Your task to perform on an android device: Search for sushi restaurants on Maps Image 0: 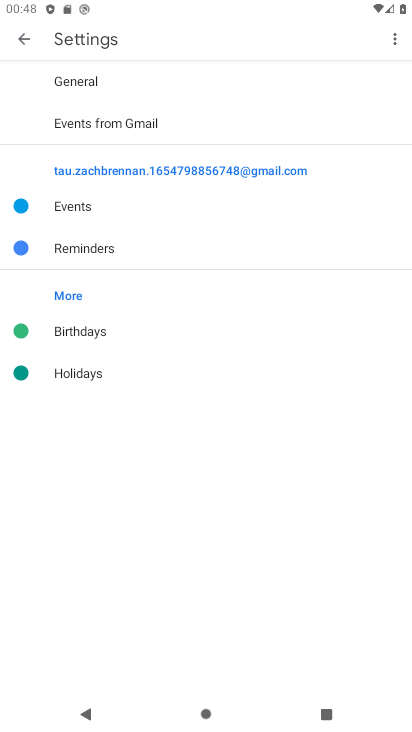
Step 0: press home button
Your task to perform on an android device: Search for sushi restaurants on Maps Image 1: 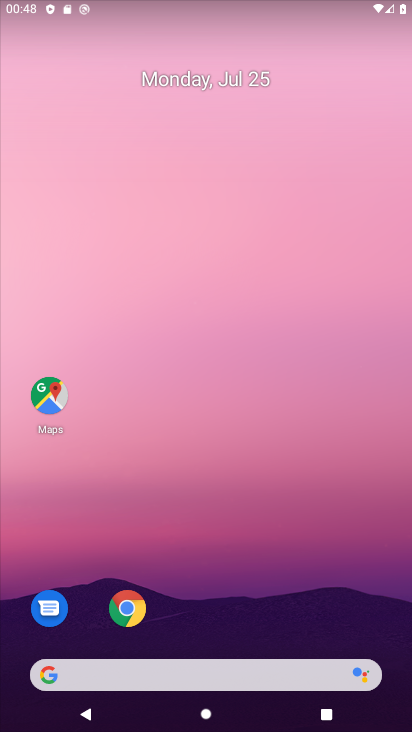
Step 1: drag from (210, 632) to (131, 56)
Your task to perform on an android device: Search for sushi restaurants on Maps Image 2: 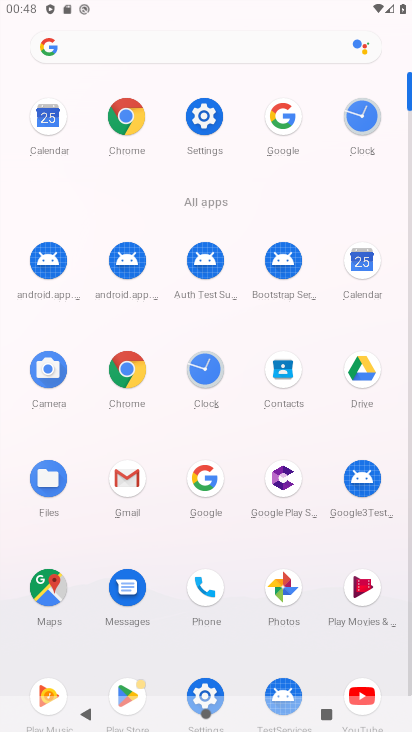
Step 2: click (54, 585)
Your task to perform on an android device: Search for sushi restaurants on Maps Image 3: 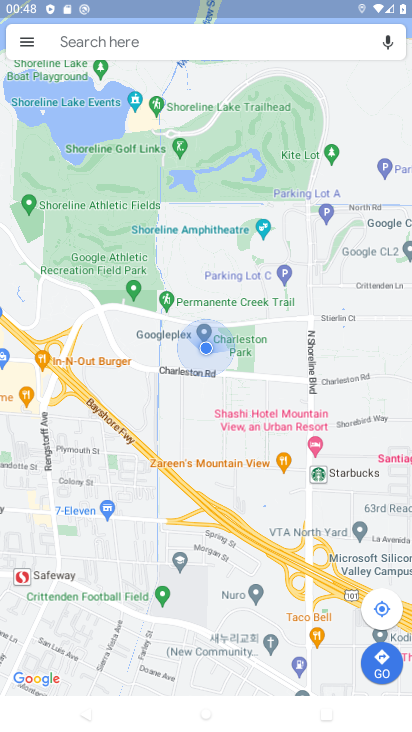
Step 3: click (161, 43)
Your task to perform on an android device: Search for sushi restaurants on Maps Image 4: 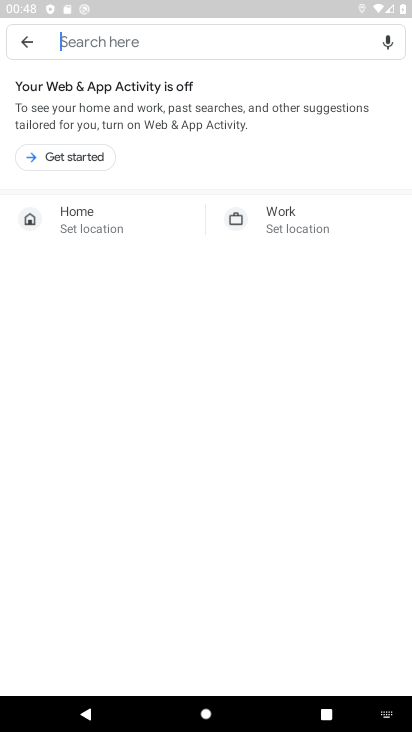
Step 4: click (48, 154)
Your task to perform on an android device: Search for sushi restaurants on Maps Image 5: 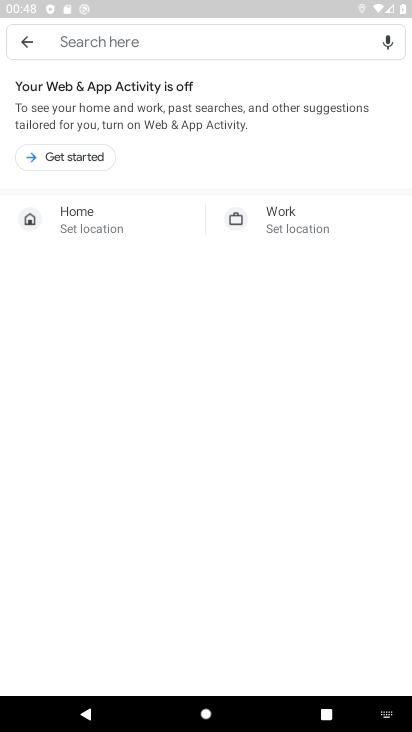
Step 5: click (49, 159)
Your task to perform on an android device: Search for sushi restaurants on Maps Image 6: 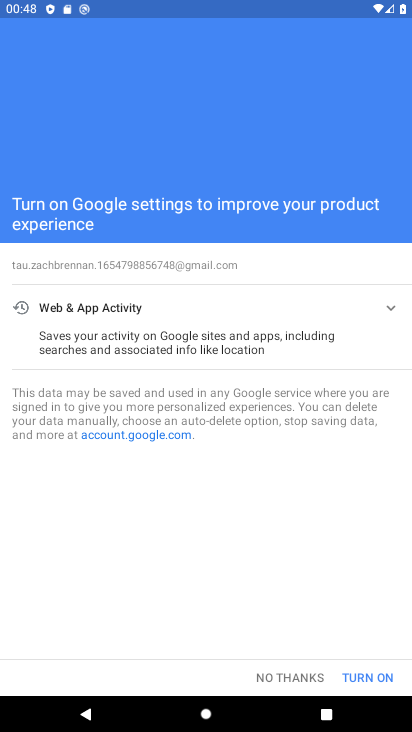
Step 6: click (377, 680)
Your task to perform on an android device: Search for sushi restaurants on Maps Image 7: 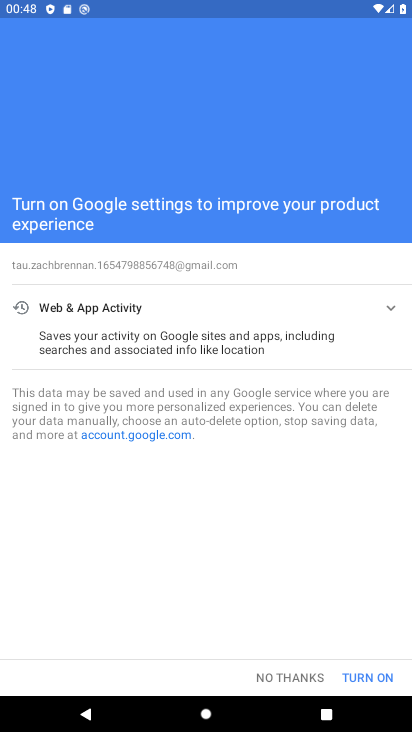
Step 7: click (373, 679)
Your task to perform on an android device: Search for sushi restaurants on Maps Image 8: 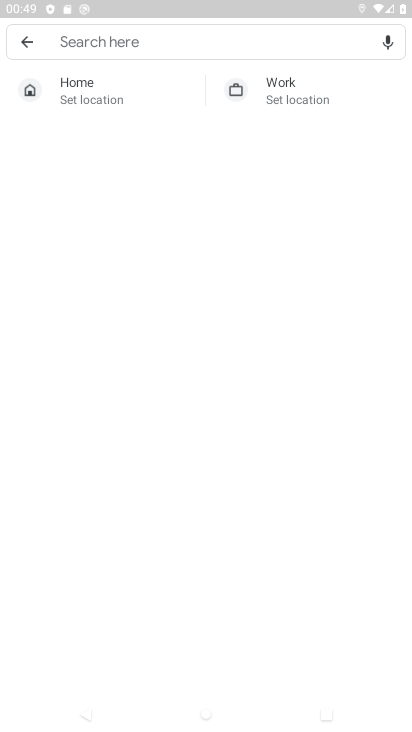
Step 8: click (81, 43)
Your task to perform on an android device: Search for sushi restaurants on Maps Image 9: 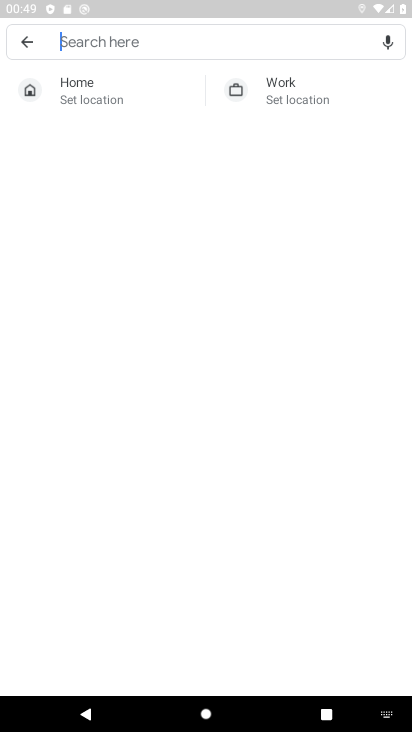
Step 9: type "sushi restaurants"
Your task to perform on an android device: Search for sushi restaurants on Maps Image 10: 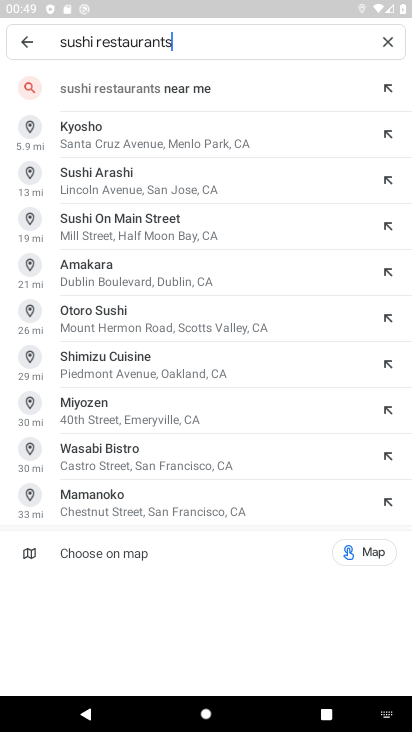
Step 10: click (127, 98)
Your task to perform on an android device: Search for sushi restaurants on Maps Image 11: 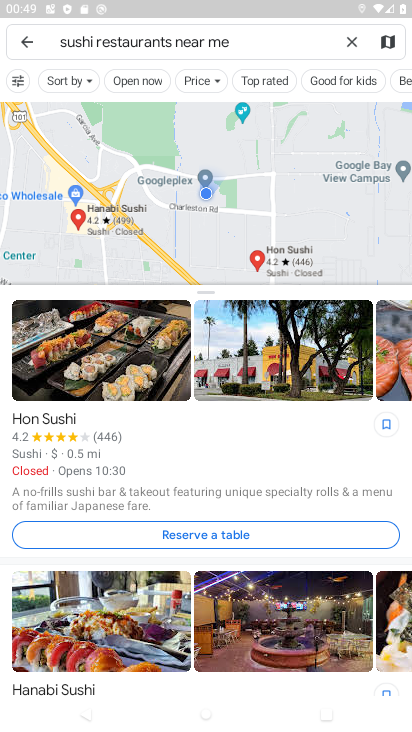
Step 11: task complete